Your task to perform on an android device: change the upload size in google photos Image 0: 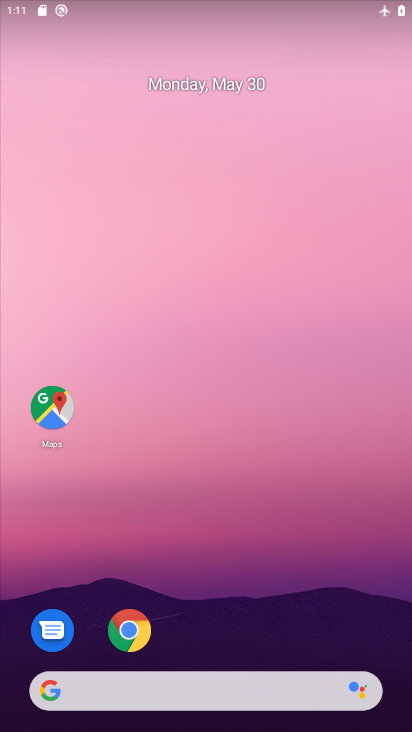
Step 0: press home button
Your task to perform on an android device: change the upload size in google photos Image 1: 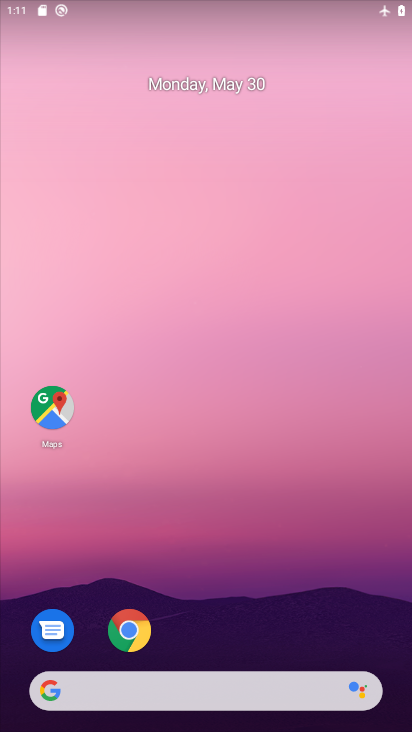
Step 1: drag from (197, 691) to (309, 95)
Your task to perform on an android device: change the upload size in google photos Image 2: 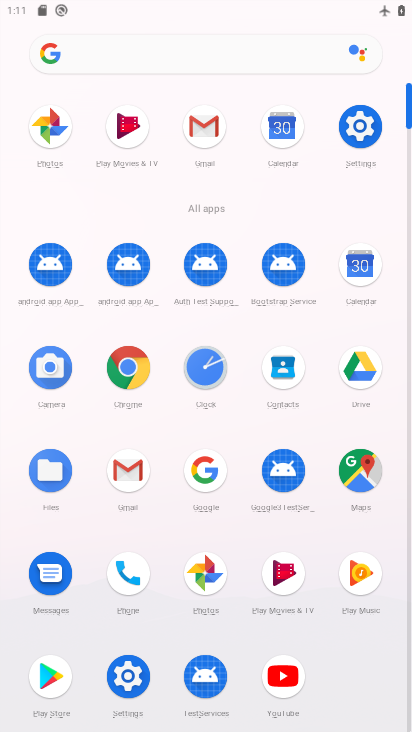
Step 2: click (51, 127)
Your task to perform on an android device: change the upload size in google photos Image 3: 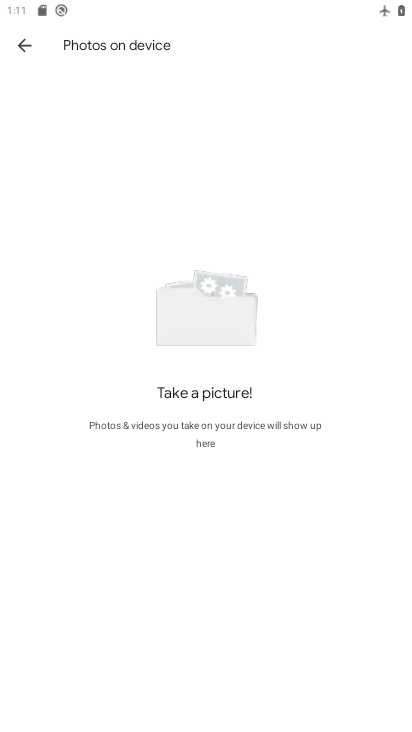
Step 3: click (23, 40)
Your task to perform on an android device: change the upload size in google photos Image 4: 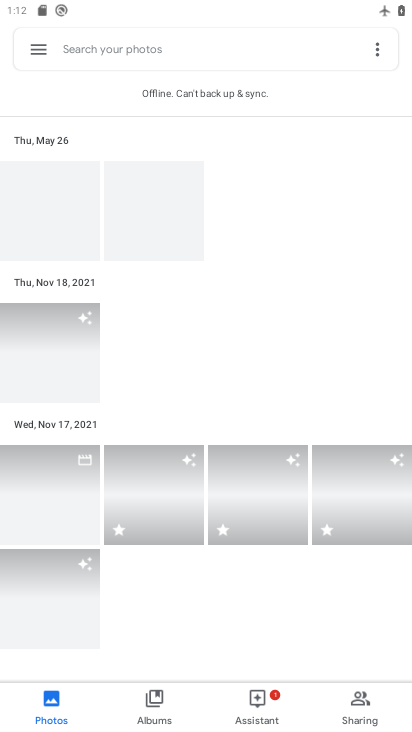
Step 4: click (38, 50)
Your task to perform on an android device: change the upload size in google photos Image 5: 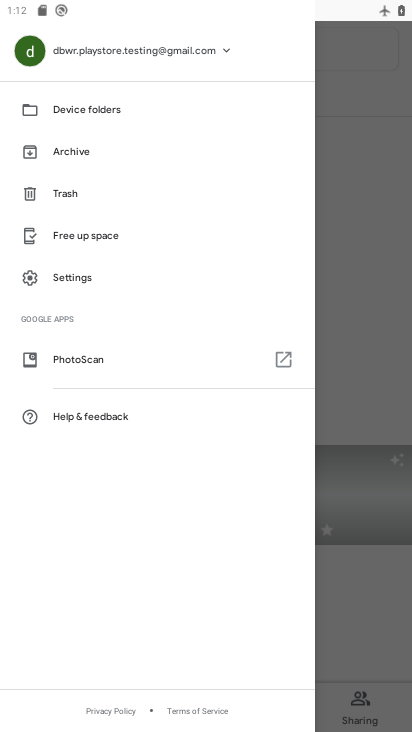
Step 5: click (76, 272)
Your task to perform on an android device: change the upload size in google photos Image 6: 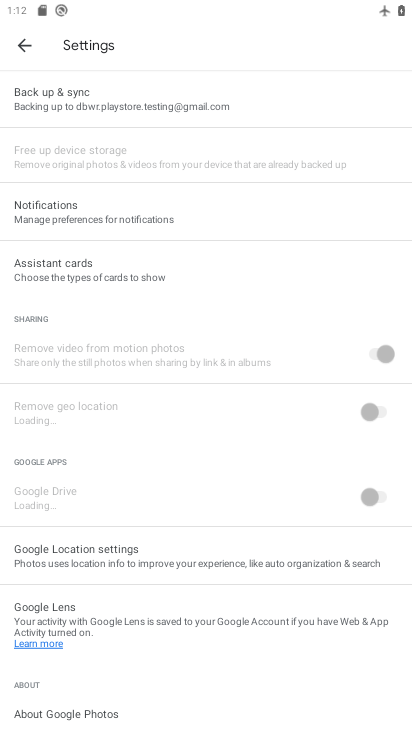
Step 6: click (108, 107)
Your task to perform on an android device: change the upload size in google photos Image 7: 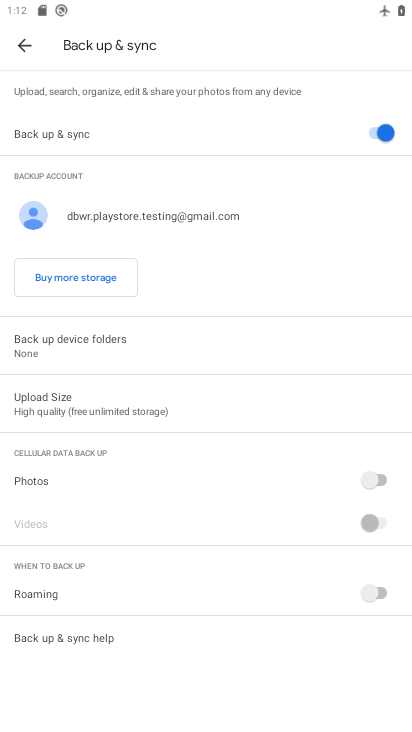
Step 7: click (99, 404)
Your task to perform on an android device: change the upload size in google photos Image 8: 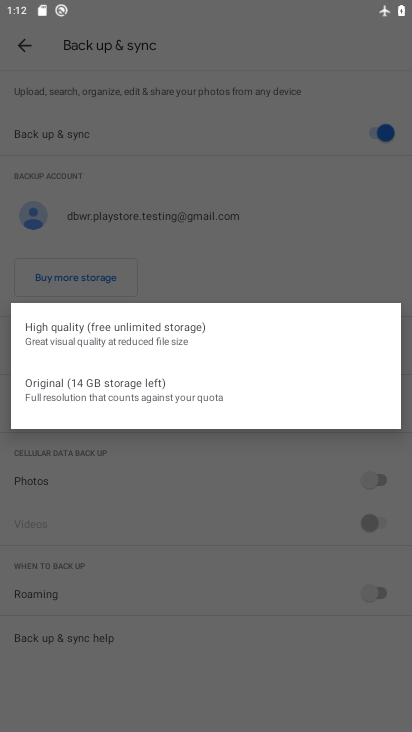
Step 8: click (48, 392)
Your task to perform on an android device: change the upload size in google photos Image 9: 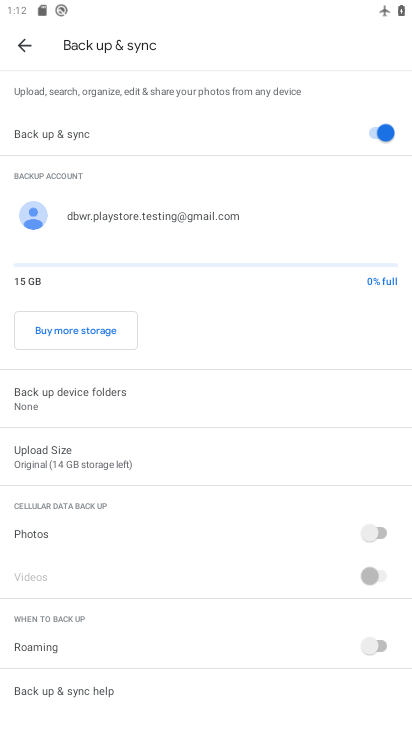
Step 9: task complete